Your task to perform on an android device: Open wifi settings Image 0: 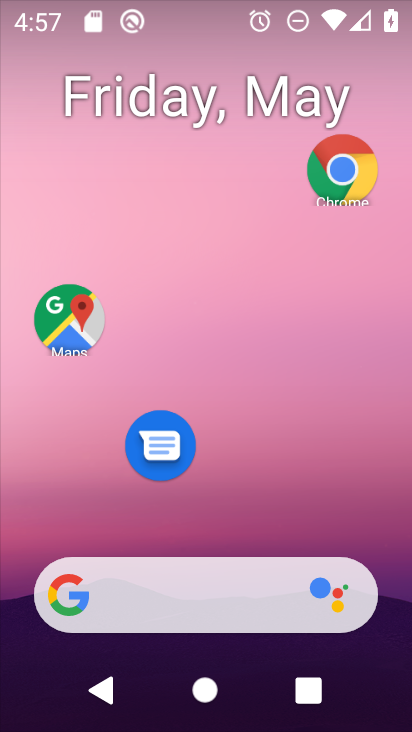
Step 0: drag from (228, 511) to (228, 21)
Your task to perform on an android device: Open wifi settings Image 1: 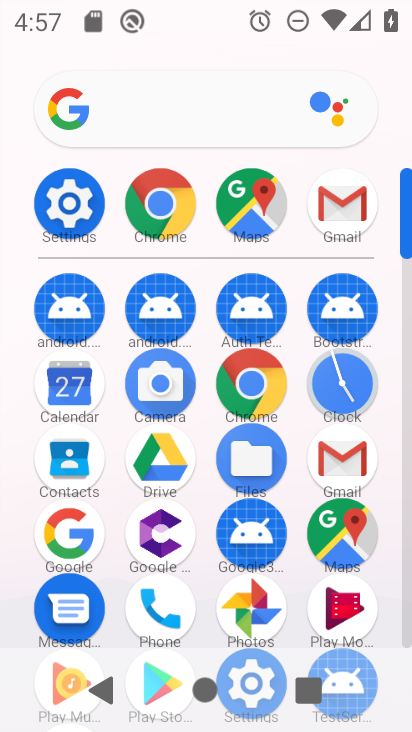
Step 1: click (72, 203)
Your task to perform on an android device: Open wifi settings Image 2: 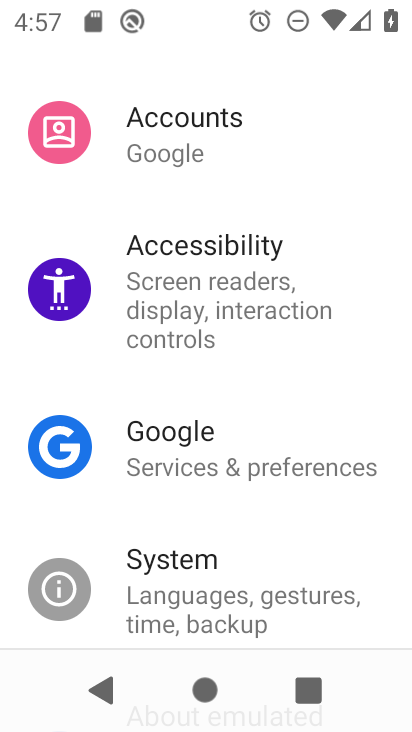
Step 2: drag from (187, 242) to (220, 712)
Your task to perform on an android device: Open wifi settings Image 3: 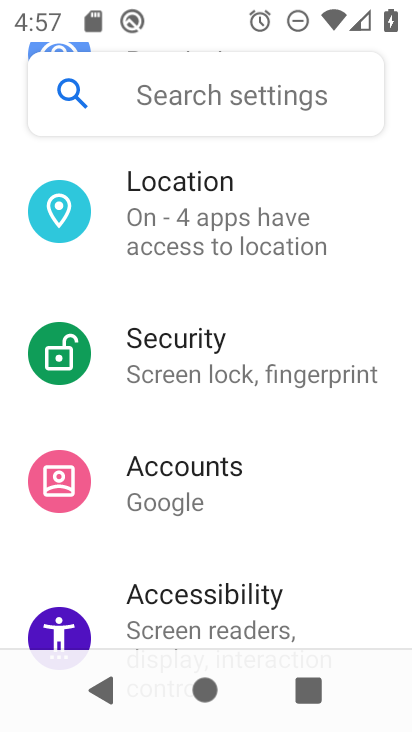
Step 3: drag from (328, 256) to (230, 729)
Your task to perform on an android device: Open wifi settings Image 4: 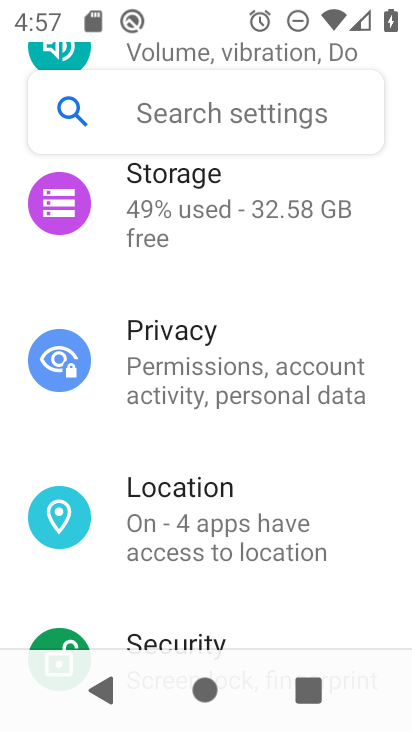
Step 4: click (187, 721)
Your task to perform on an android device: Open wifi settings Image 5: 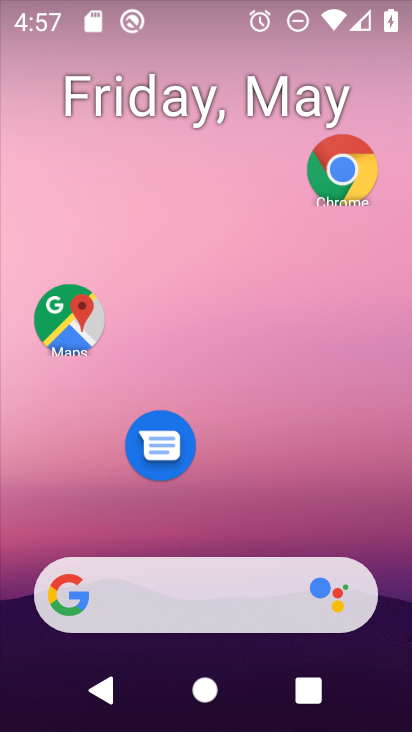
Step 5: drag from (191, 511) to (109, 5)
Your task to perform on an android device: Open wifi settings Image 6: 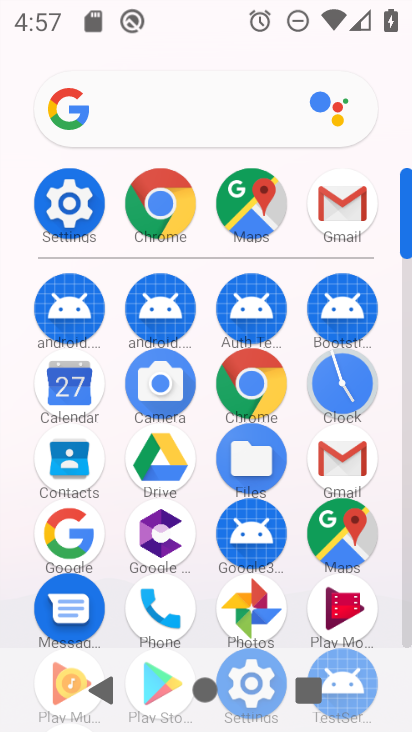
Step 6: click (67, 222)
Your task to perform on an android device: Open wifi settings Image 7: 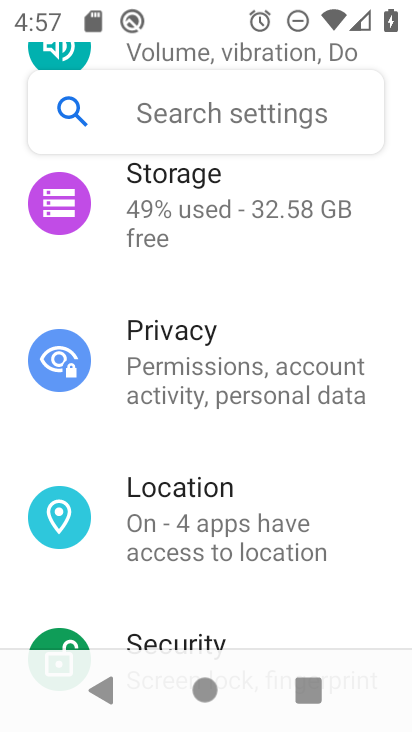
Step 7: drag from (202, 254) to (191, 591)
Your task to perform on an android device: Open wifi settings Image 8: 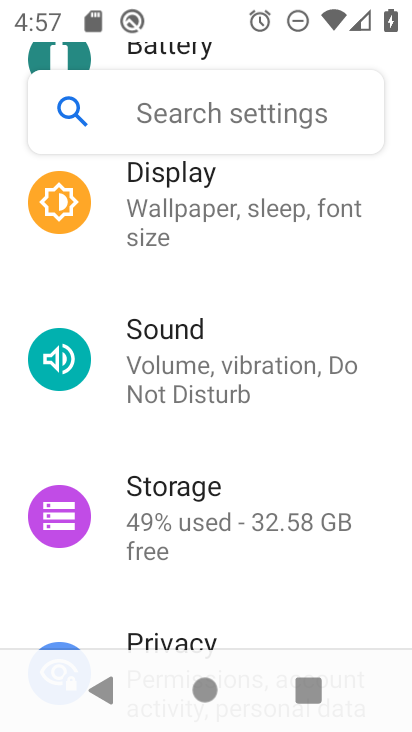
Step 8: drag from (211, 286) to (172, 717)
Your task to perform on an android device: Open wifi settings Image 9: 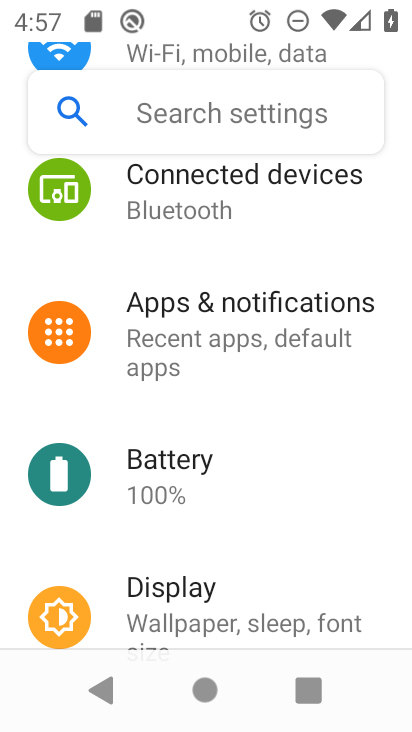
Step 9: drag from (217, 269) to (182, 647)
Your task to perform on an android device: Open wifi settings Image 10: 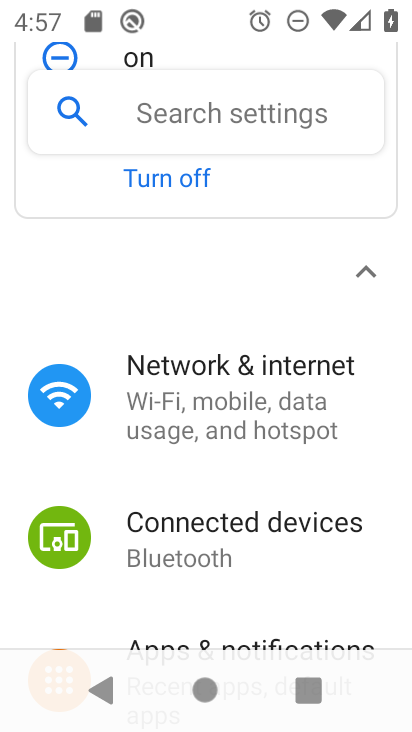
Step 10: click (216, 427)
Your task to perform on an android device: Open wifi settings Image 11: 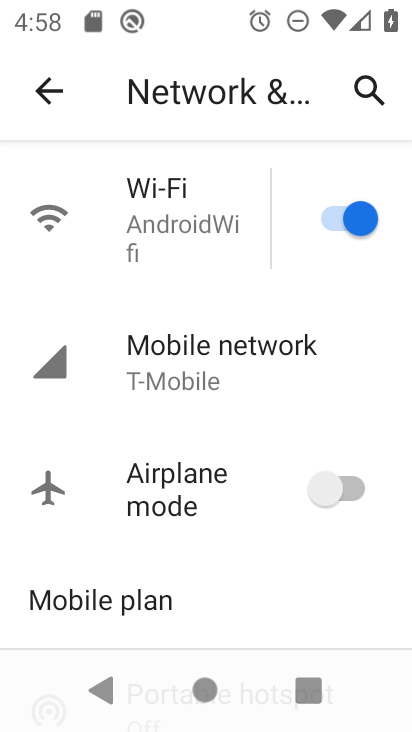
Step 11: click (180, 217)
Your task to perform on an android device: Open wifi settings Image 12: 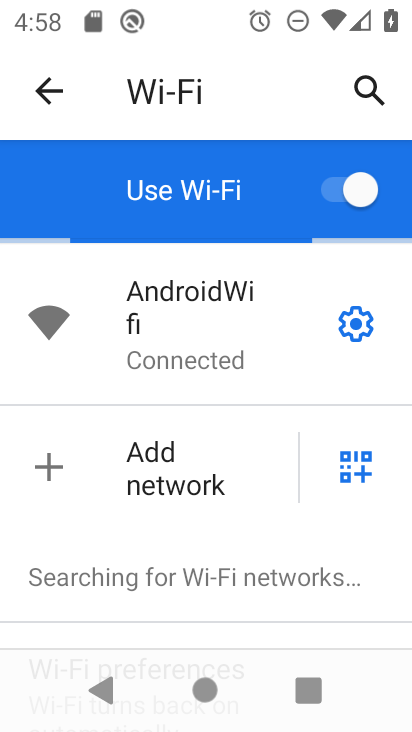
Step 12: task complete